Your task to perform on an android device: Search for sushi restaurants on Maps Image 0: 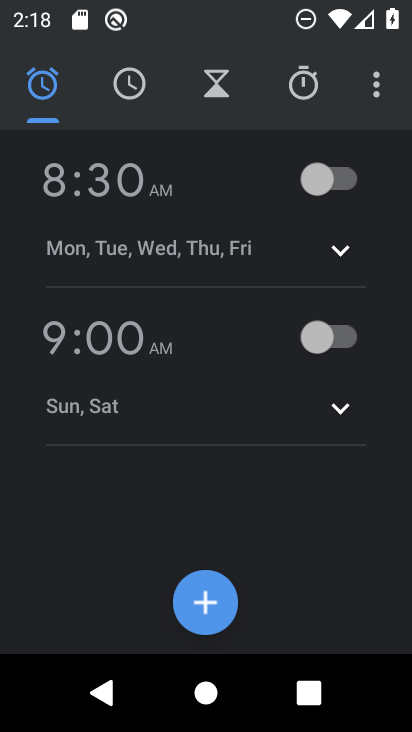
Step 0: press home button
Your task to perform on an android device: Search for sushi restaurants on Maps Image 1: 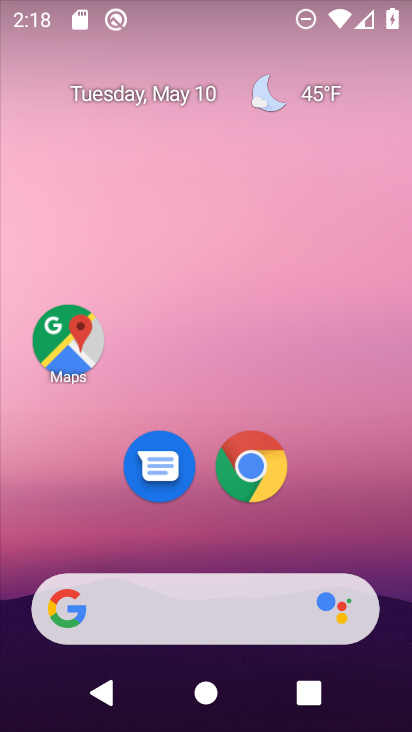
Step 1: click (71, 336)
Your task to perform on an android device: Search for sushi restaurants on Maps Image 2: 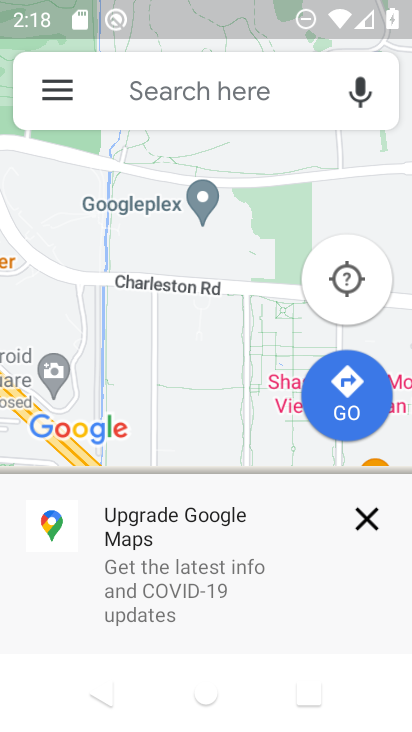
Step 2: click (174, 81)
Your task to perform on an android device: Search for sushi restaurants on Maps Image 3: 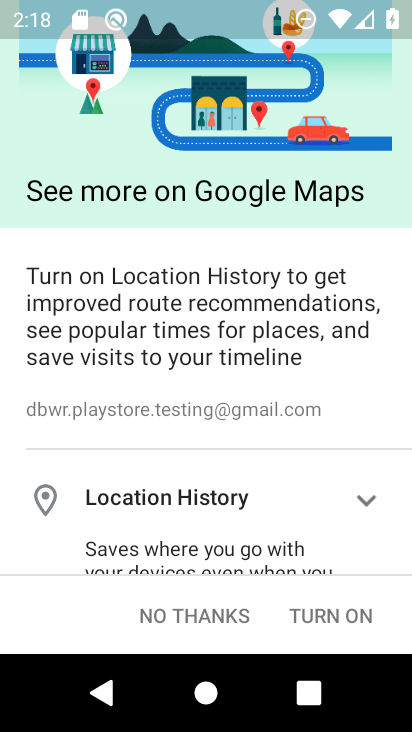
Step 3: click (210, 615)
Your task to perform on an android device: Search for sushi restaurants on Maps Image 4: 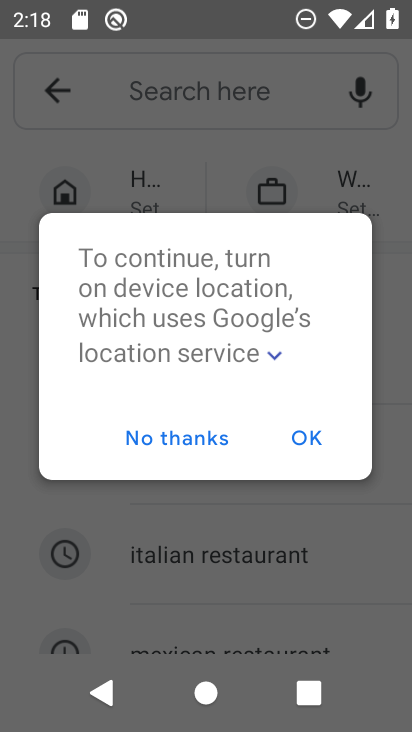
Step 4: click (305, 434)
Your task to perform on an android device: Search for sushi restaurants on Maps Image 5: 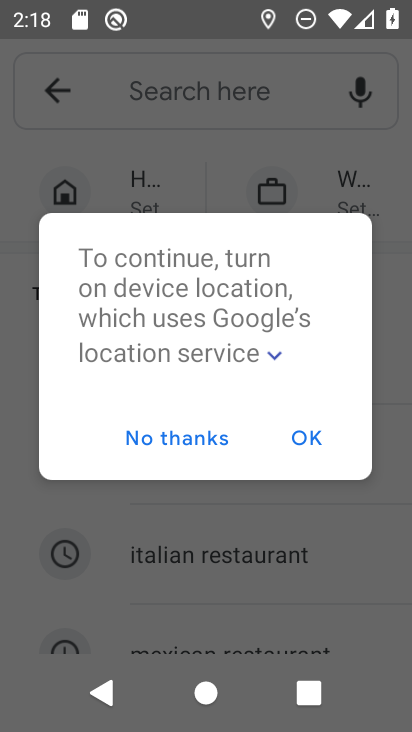
Step 5: click (164, 445)
Your task to perform on an android device: Search for sushi restaurants on Maps Image 6: 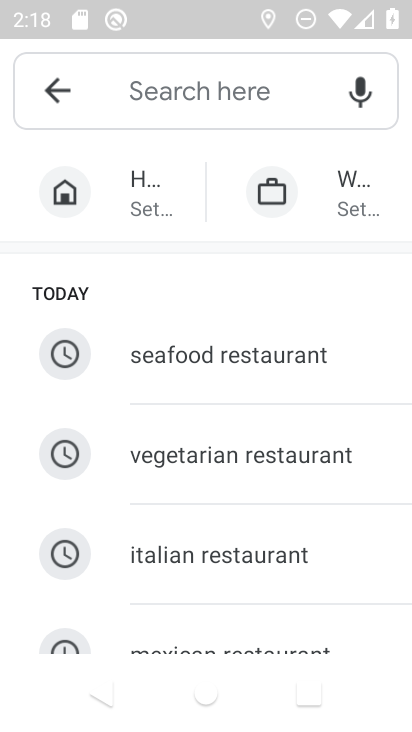
Step 6: click (257, 99)
Your task to perform on an android device: Search for sushi restaurants on Maps Image 7: 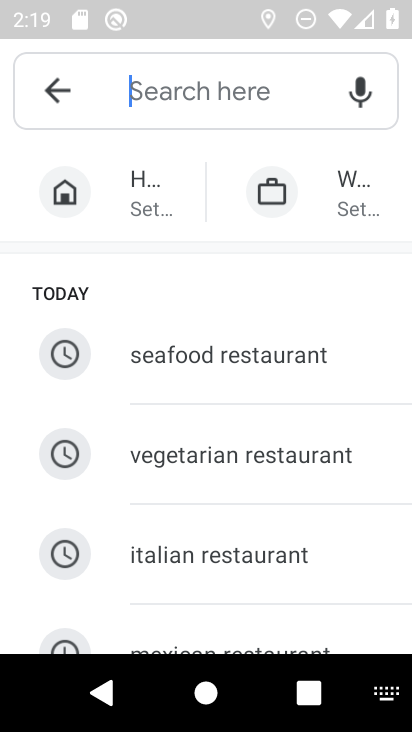
Step 7: type "sushi restaurants"
Your task to perform on an android device: Search for sushi restaurants on Maps Image 8: 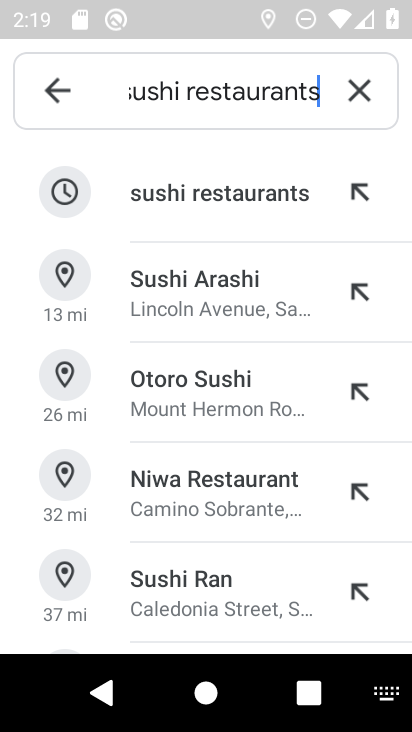
Step 8: click (206, 196)
Your task to perform on an android device: Search for sushi restaurants on Maps Image 9: 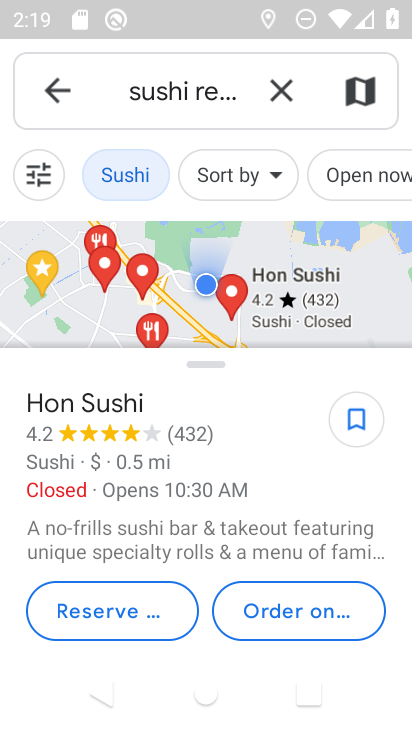
Step 9: task complete